Your task to perform on an android device: Do I have any events today? Image 0: 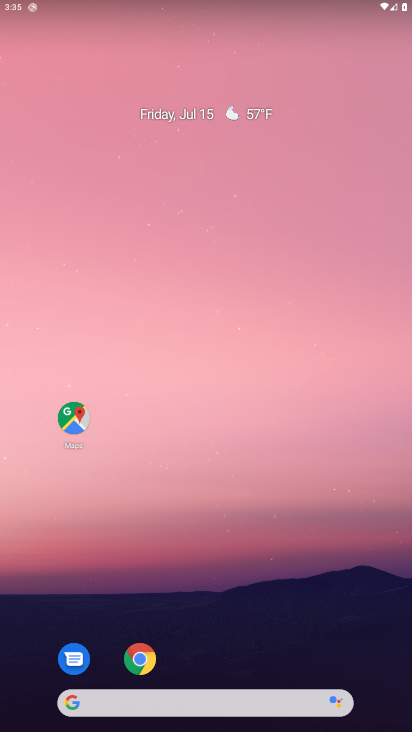
Step 0: drag from (21, 707) to (243, 111)
Your task to perform on an android device: Do I have any events today? Image 1: 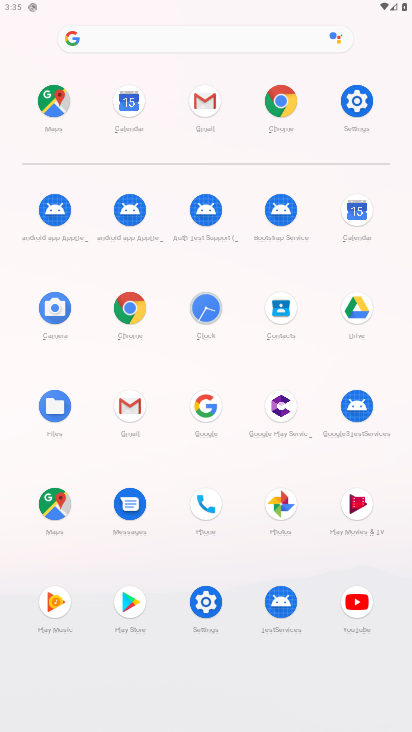
Step 1: click (351, 226)
Your task to perform on an android device: Do I have any events today? Image 2: 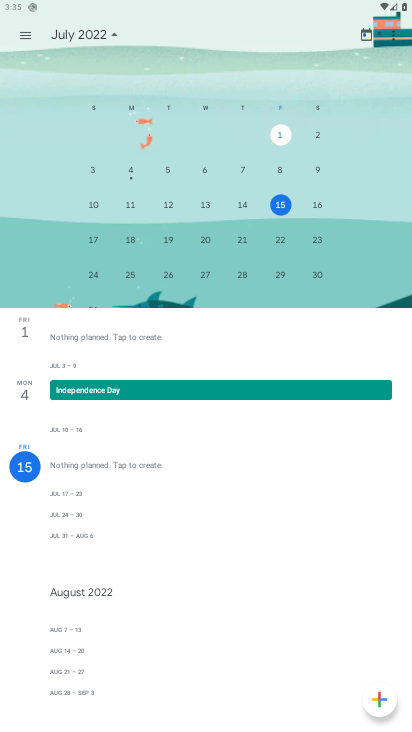
Step 2: task complete